Your task to perform on an android device: stop showing notifications on the lock screen Image 0: 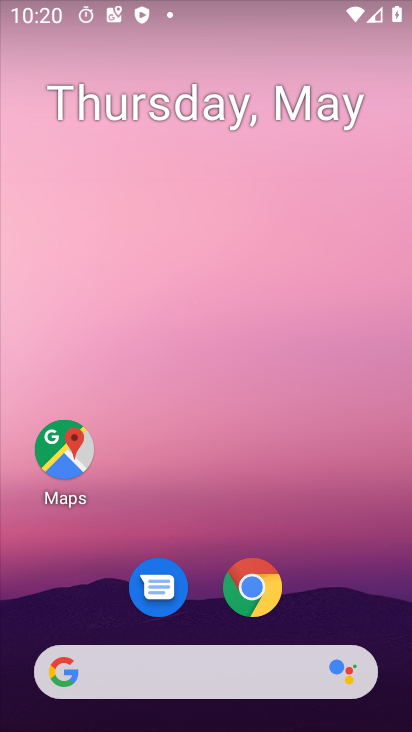
Step 0: drag from (367, 625) to (353, 30)
Your task to perform on an android device: stop showing notifications on the lock screen Image 1: 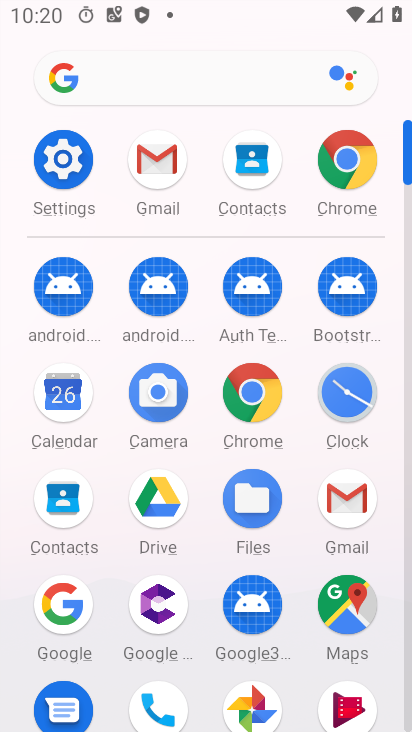
Step 1: click (62, 166)
Your task to perform on an android device: stop showing notifications on the lock screen Image 2: 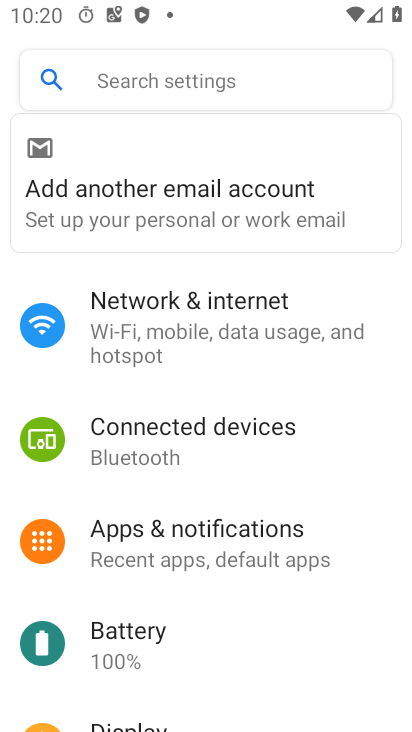
Step 2: click (219, 556)
Your task to perform on an android device: stop showing notifications on the lock screen Image 3: 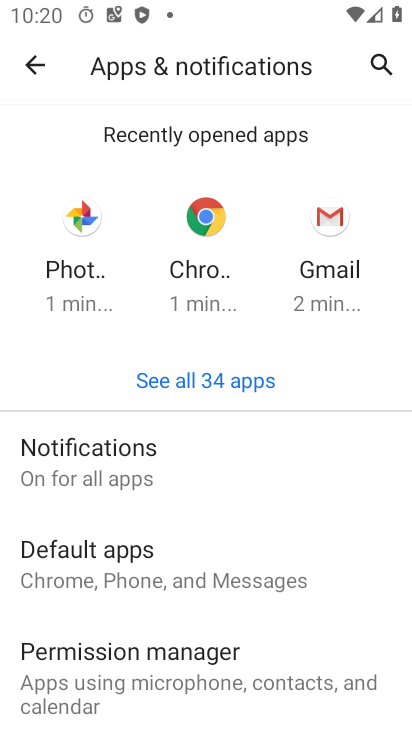
Step 3: click (96, 477)
Your task to perform on an android device: stop showing notifications on the lock screen Image 4: 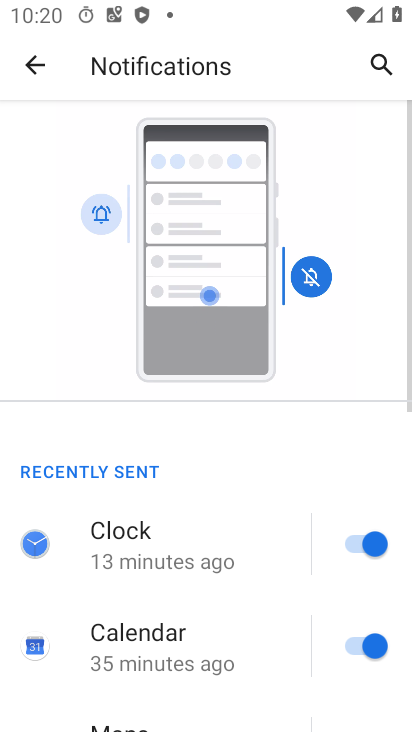
Step 4: drag from (202, 561) to (173, 39)
Your task to perform on an android device: stop showing notifications on the lock screen Image 5: 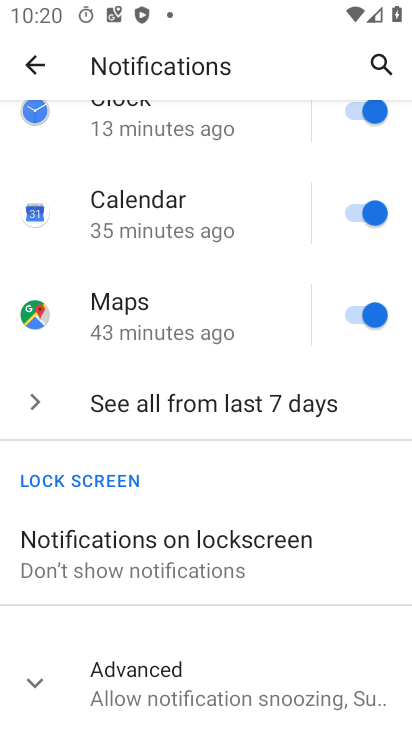
Step 5: drag from (197, 453) to (178, 131)
Your task to perform on an android device: stop showing notifications on the lock screen Image 6: 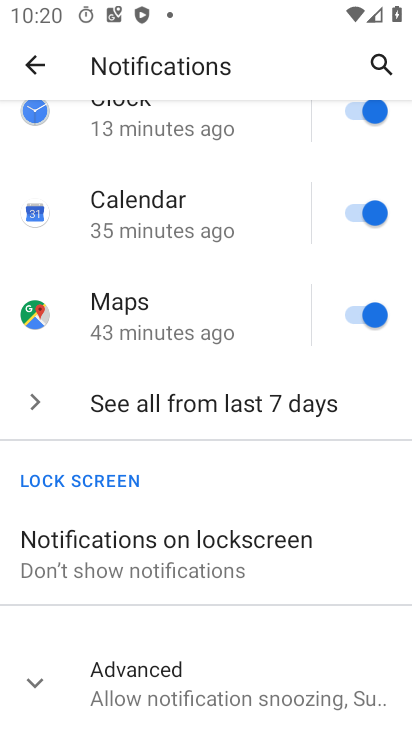
Step 6: click (121, 550)
Your task to perform on an android device: stop showing notifications on the lock screen Image 7: 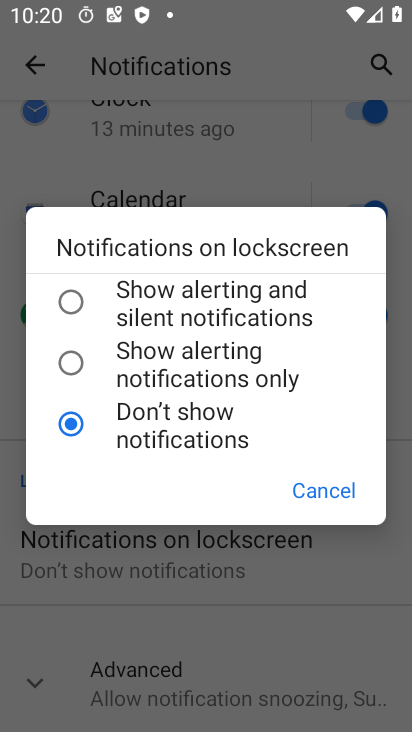
Step 7: task complete